Your task to perform on an android device: Open maps Image 0: 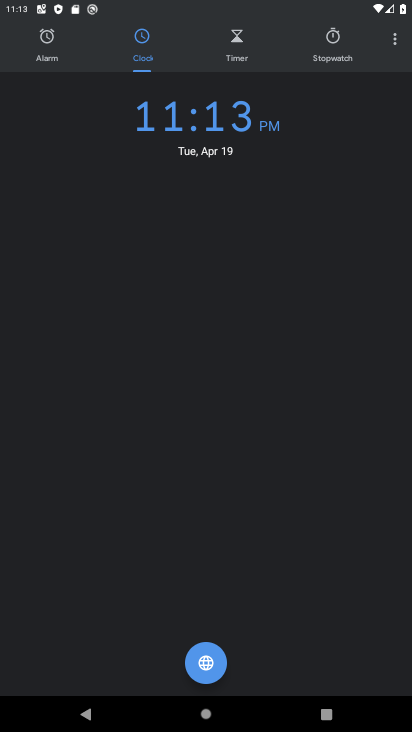
Step 0: press home button
Your task to perform on an android device: Open maps Image 1: 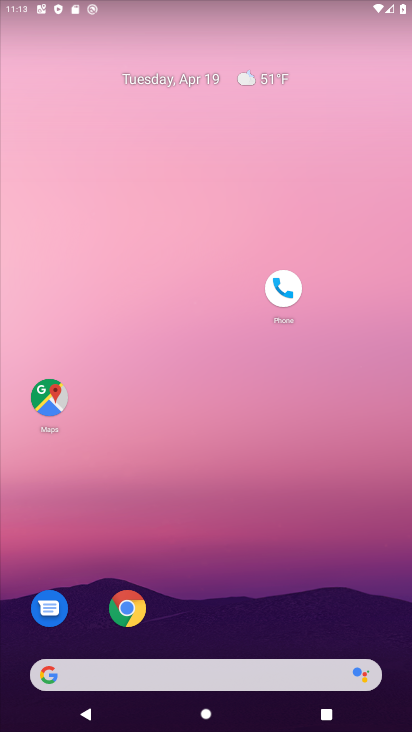
Step 1: click (41, 391)
Your task to perform on an android device: Open maps Image 2: 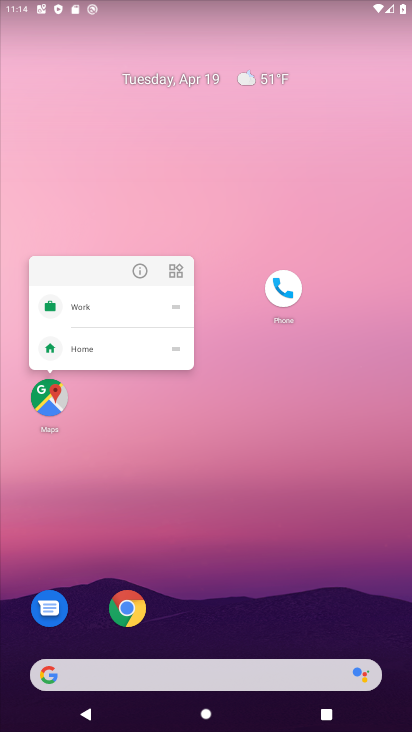
Step 2: click (46, 401)
Your task to perform on an android device: Open maps Image 3: 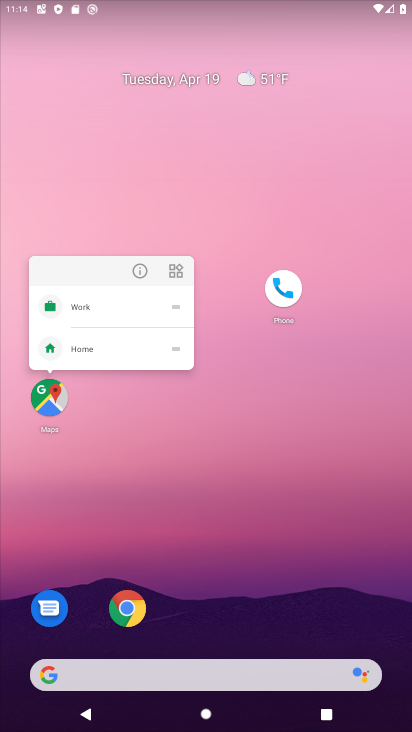
Step 3: click (138, 272)
Your task to perform on an android device: Open maps Image 4: 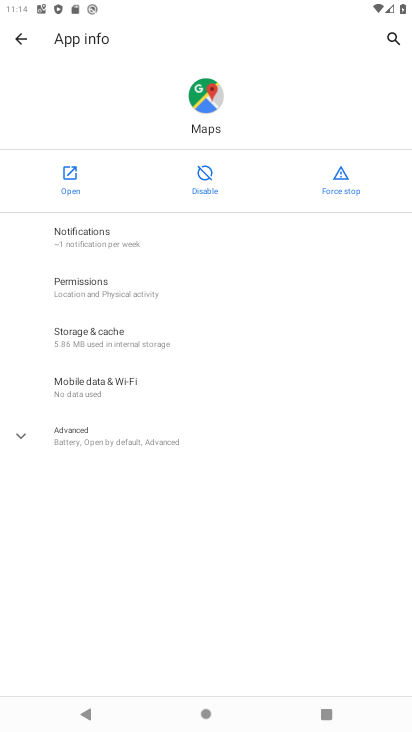
Step 4: click (73, 168)
Your task to perform on an android device: Open maps Image 5: 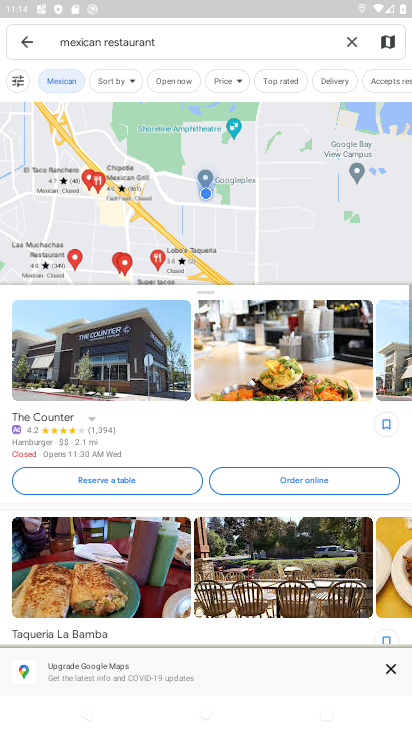
Step 5: task complete